Your task to perform on an android device: change timer sound Image 0: 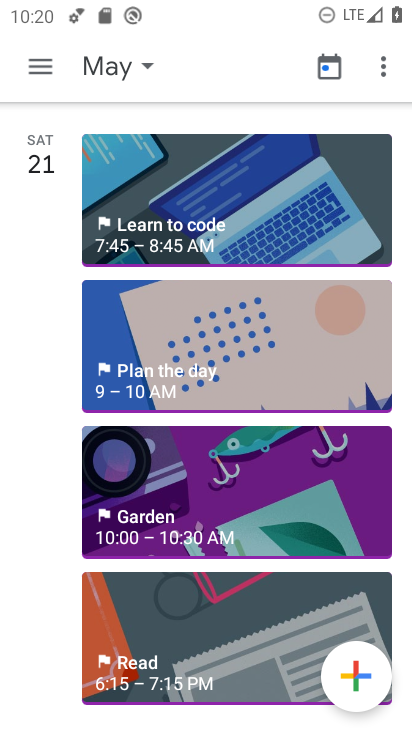
Step 0: press home button
Your task to perform on an android device: change timer sound Image 1: 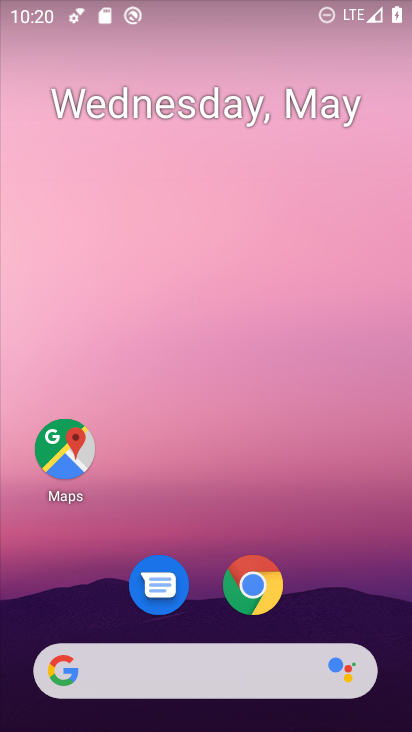
Step 1: drag from (222, 483) to (238, 73)
Your task to perform on an android device: change timer sound Image 2: 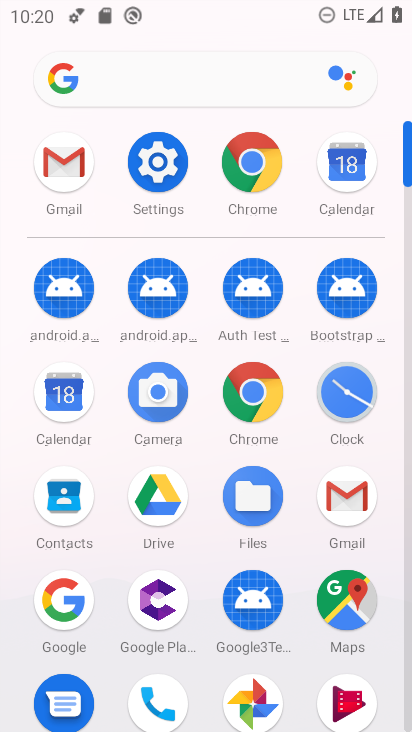
Step 2: click (331, 387)
Your task to perform on an android device: change timer sound Image 3: 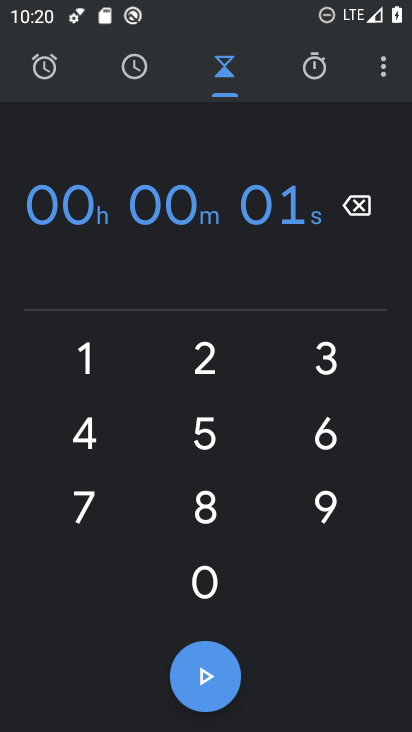
Step 3: click (383, 70)
Your task to perform on an android device: change timer sound Image 4: 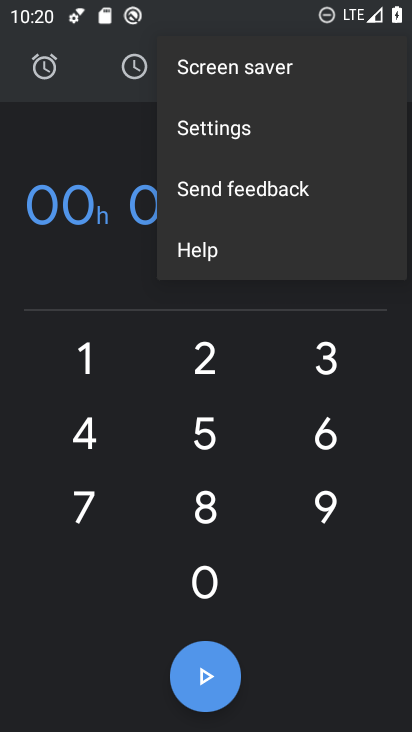
Step 4: click (271, 130)
Your task to perform on an android device: change timer sound Image 5: 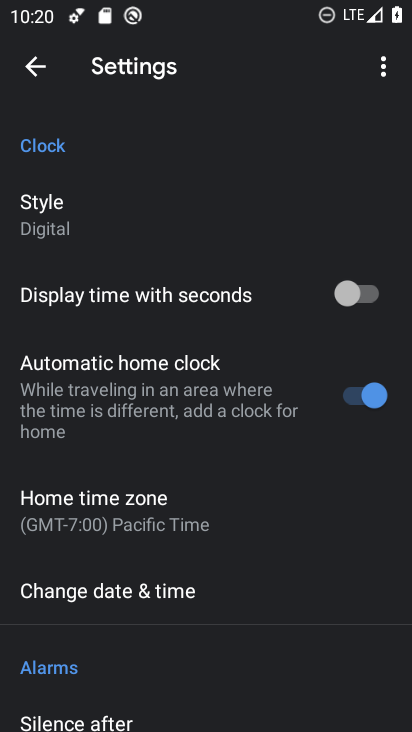
Step 5: drag from (199, 512) to (223, 178)
Your task to perform on an android device: change timer sound Image 6: 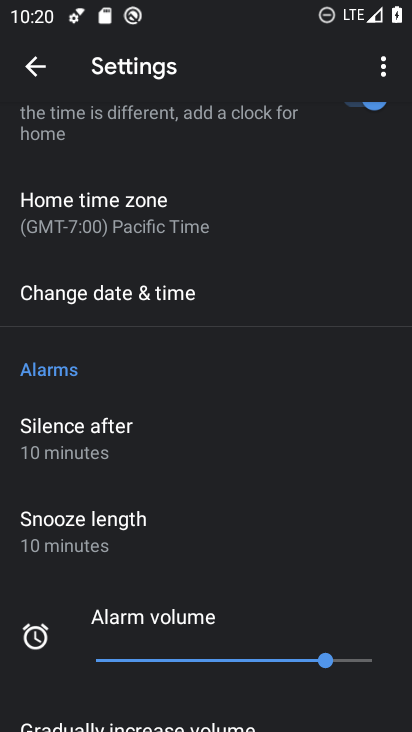
Step 6: drag from (219, 512) to (231, 212)
Your task to perform on an android device: change timer sound Image 7: 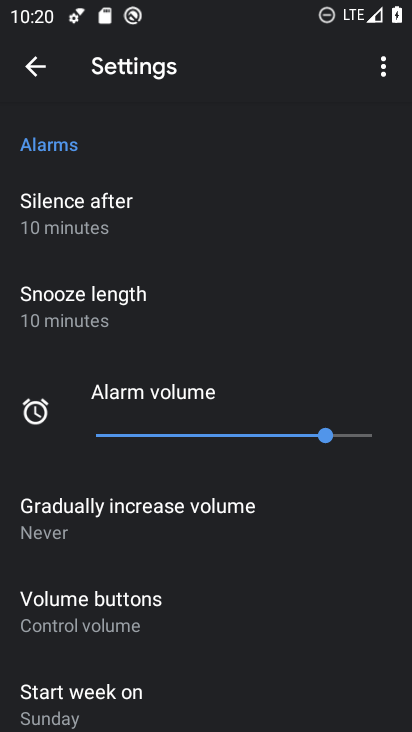
Step 7: drag from (190, 555) to (188, 272)
Your task to perform on an android device: change timer sound Image 8: 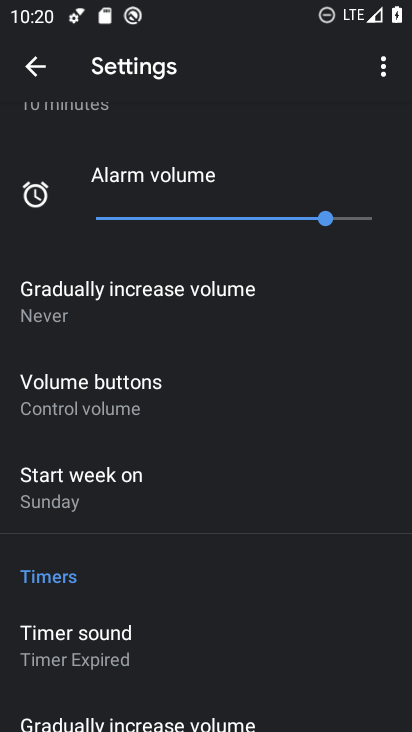
Step 8: click (138, 635)
Your task to perform on an android device: change timer sound Image 9: 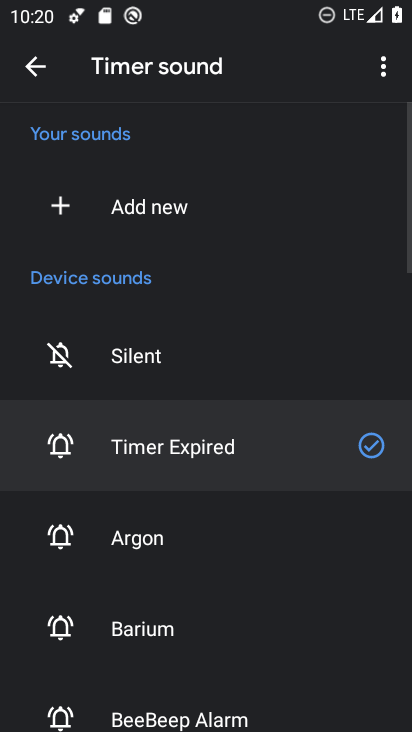
Step 9: click (145, 538)
Your task to perform on an android device: change timer sound Image 10: 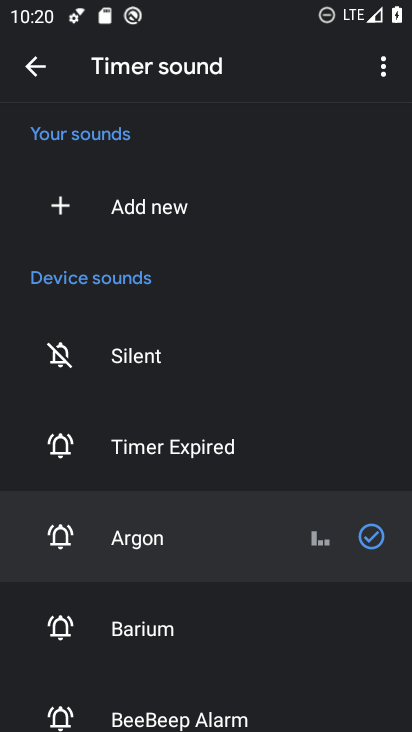
Step 10: task complete